Your task to perform on an android device: toggle priority inbox in the gmail app Image 0: 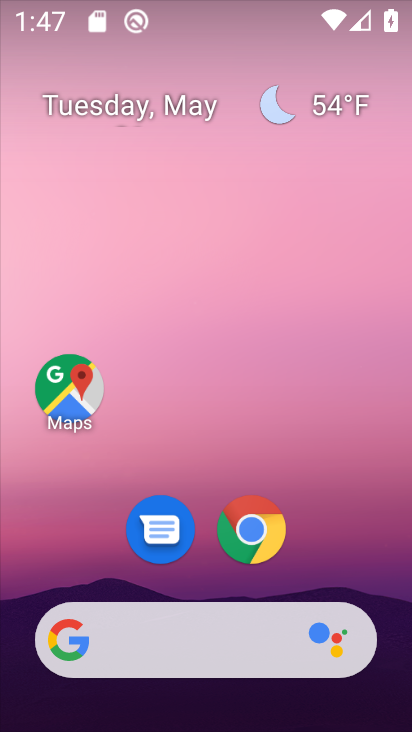
Step 0: drag from (307, 559) to (325, 296)
Your task to perform on an android device: toggle priority inbox in the gmail app Image 1: 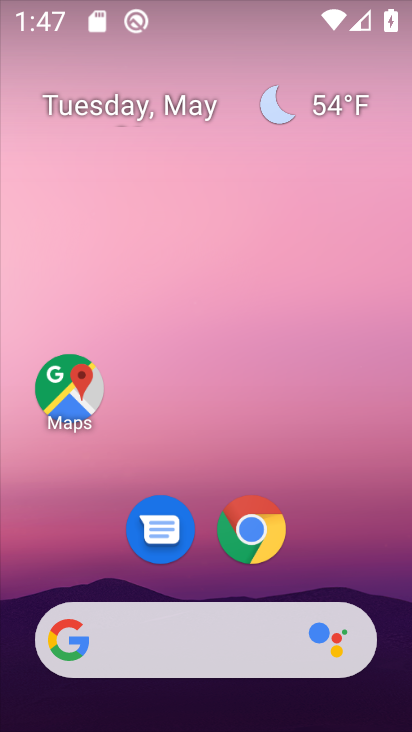
Step 1: drag from (244, 559) to (269, 168)
Your task to perform on an android device: toggle priority inbox in the gmail app Image 2: 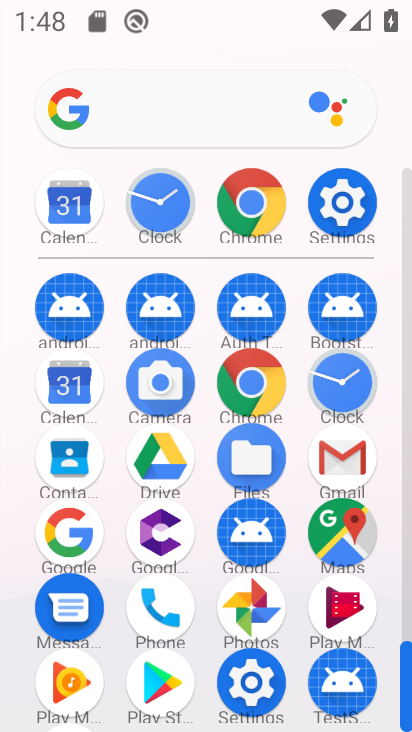
Step 2: click (342, 453)
Your task to perform on an android device: toggle priority inbox in the gmail app Image 3: 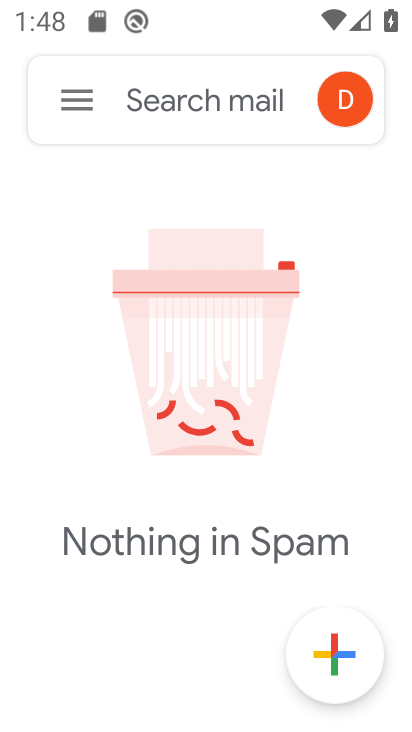
Step 3: click (82, 103)
Your task to perform on an android device: toggle priority inbox in the gmail app Image 4: 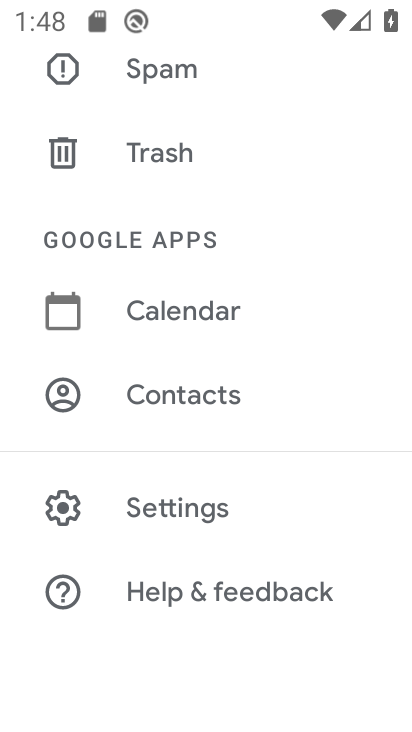
Step 4: click (166, 511)
Your task to perform on an android device: toggle priority inbox in the gmail app Image 5: 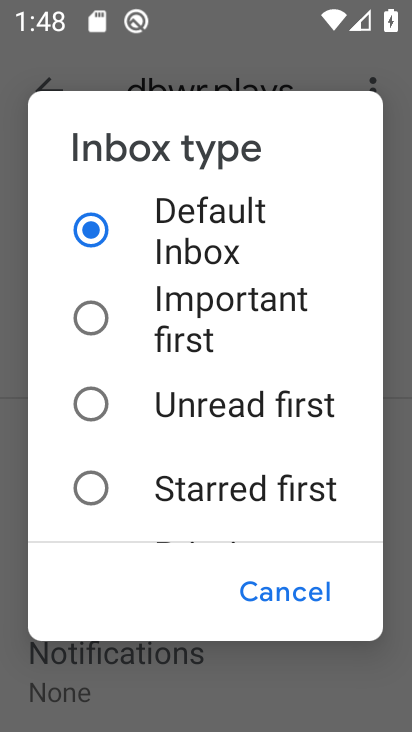
Step 5: click (200, 480)
Your task to perform on an android device: toggle priority inbox in the gmail app Image 6: 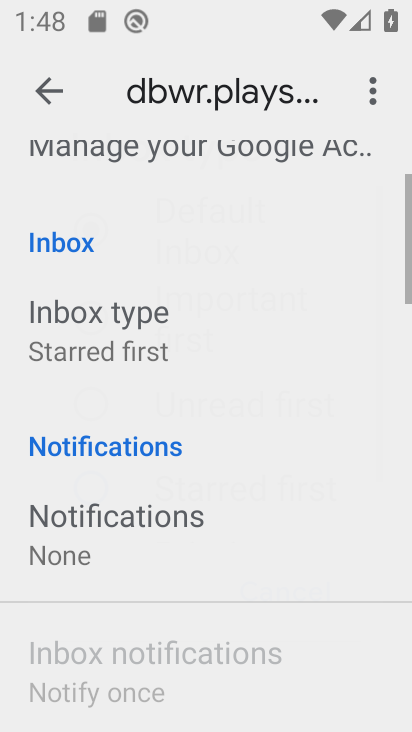
Step 6: drag from (200, 480) to (236, 171)
Your task to perform on an android device: toggle priority inbox in the gmail app Image 7: 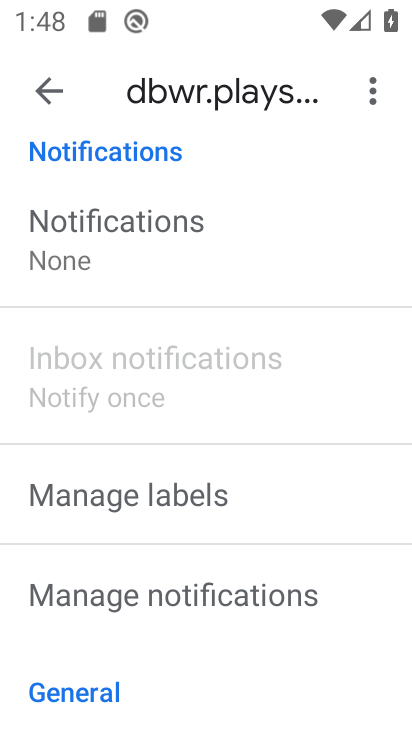
Step 7: drag from (95, 238) to (140, 504)
Your task to perform on an android device: toggle priority inbox in the gmail app Image 8: 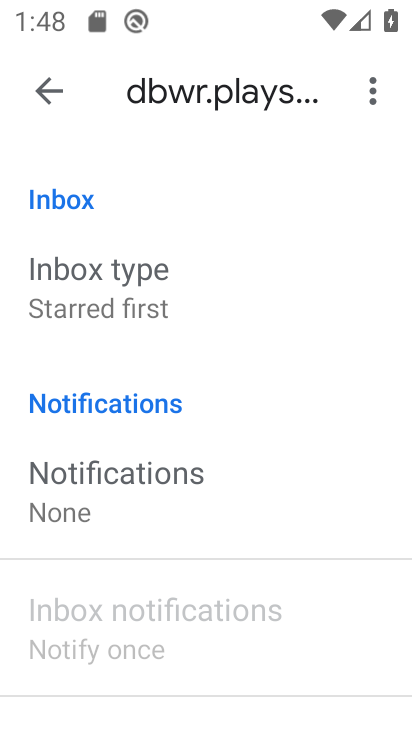
Step 8: click (67, 282)
Your task to perform on an android device: toggle priority inbox in the gmail app Image 9: 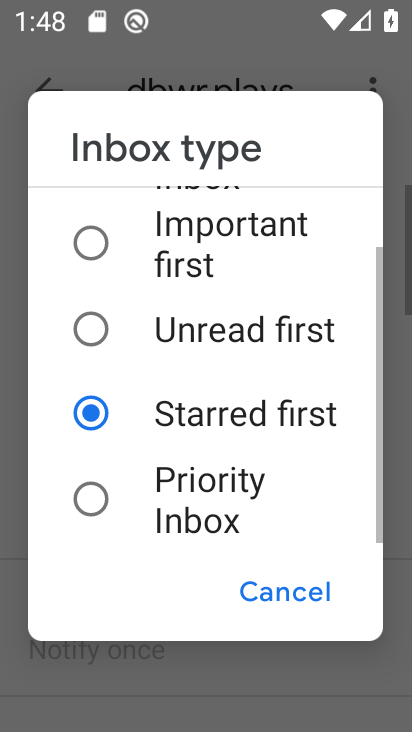
Step 9: drag from (170, 502) to (200, 370)
Your task to perform on an android device: toggle priority inbox in the gmail app Image 10: 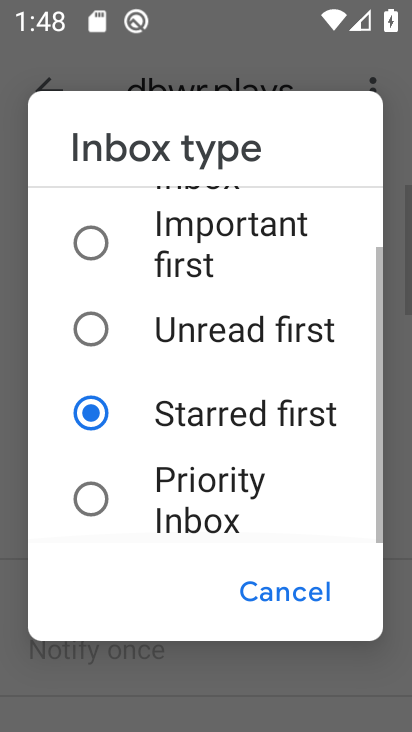
Step 10: click (178, 479)
Your task to perform on an android device: toggle priority inbox in the gmail app Image 11: 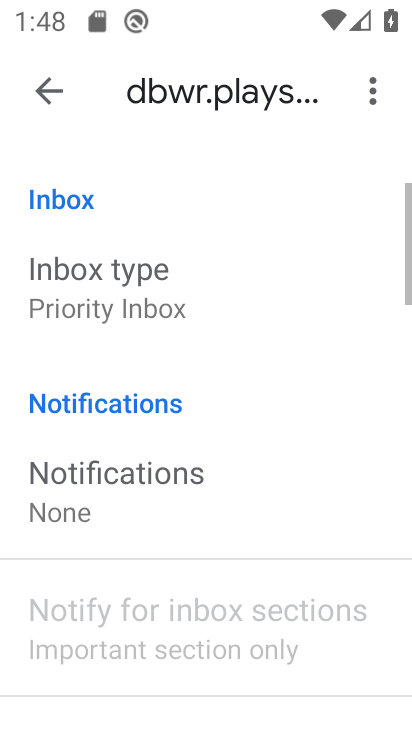
Step 11: task complete